Your task to perform on an android device: turn on improve location accuracy Image 0: 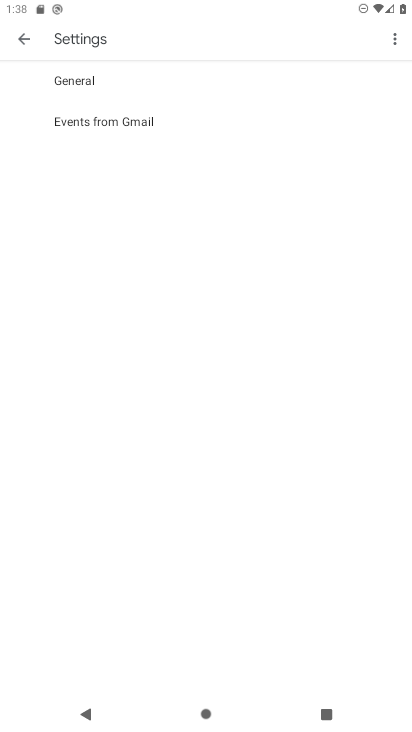
Step 0: press back button
Your task to perform on an android device: turn on improve location accuracy Image 1: 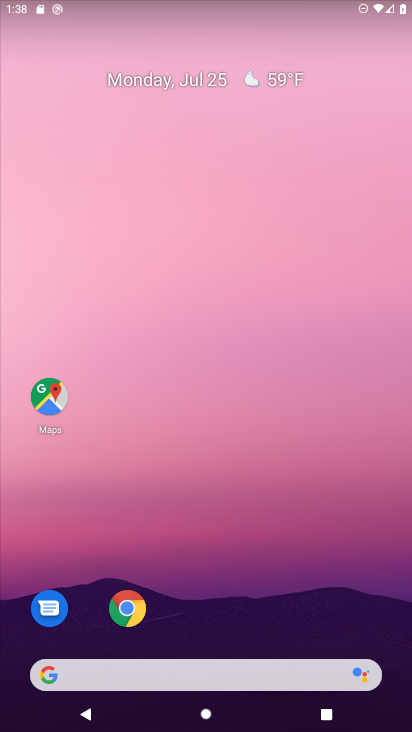
Step 1: drag from (380, 613) to (319, 204)
Your task to perform on an android device: turn on improve location accuracy Image 2: 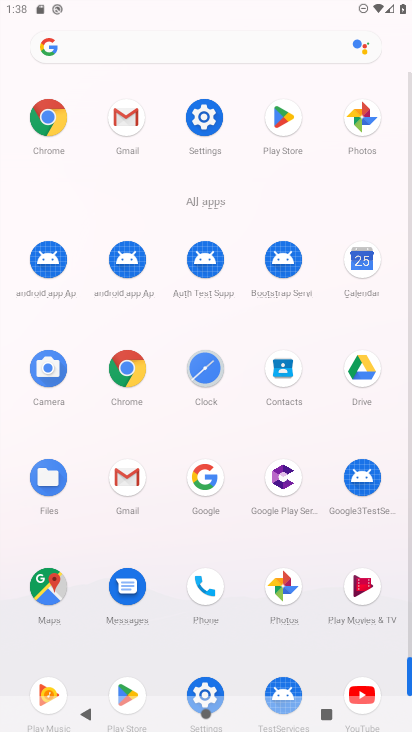
Step 2: click (206, 688)
Your task to perform on an android device: turn on improve location accuracy Image 3: 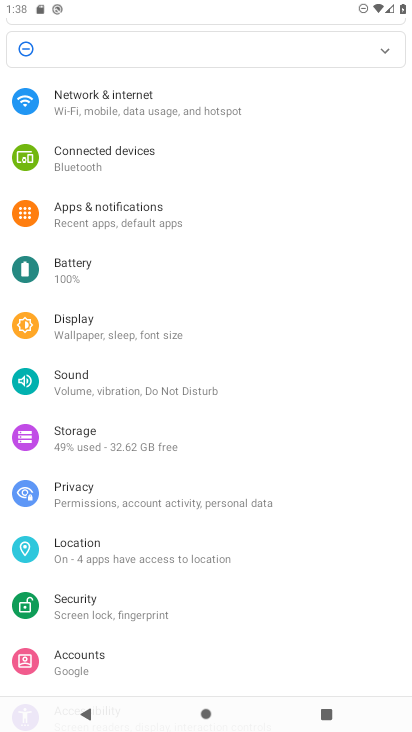
Step 3: click (85, 559)
Your task to perform on an android device: turn on improve location accuracy Image 4: 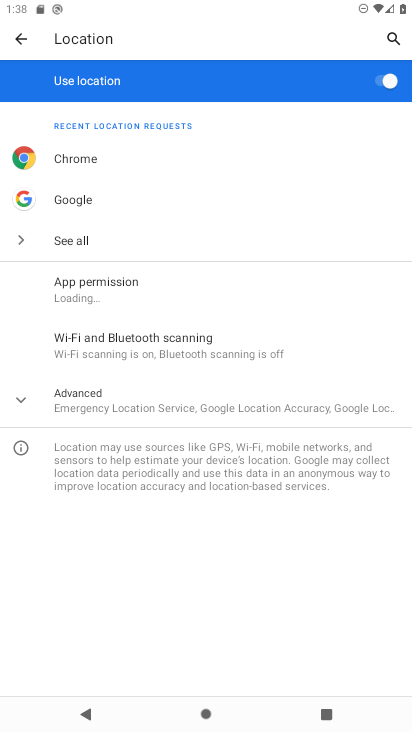
Step 4: click (19, 399)
Your task to perform on an android device: turn on improve location accuracy Image 5: 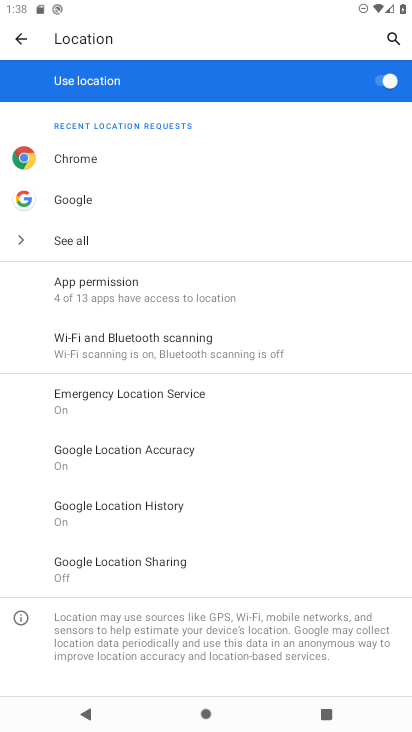
Step 5: click (105, 448)
Your task to perform on an android device: turn on improve location accuracy Image 6: 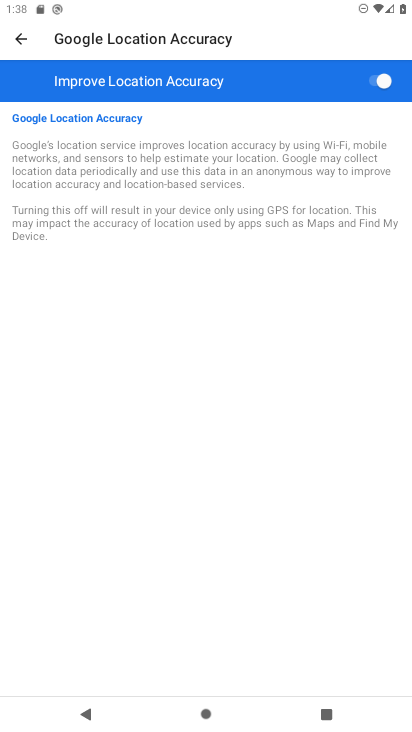
Step 6: task complete